Your task to perform on an android device: set an alarm Image 0: 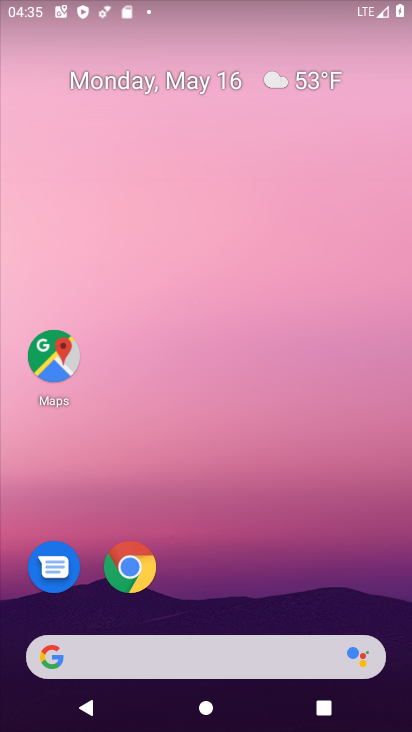
Step 0: drag from (306, 665) to (331, 123)
Your task to perform on an android device: set an alarm Image 1: 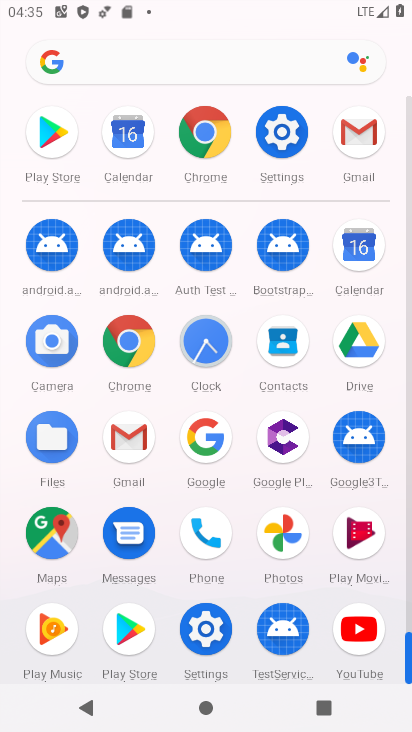
Step 1: click (204, 350)
Your task to perform on an android device: set an alarm Image 2: 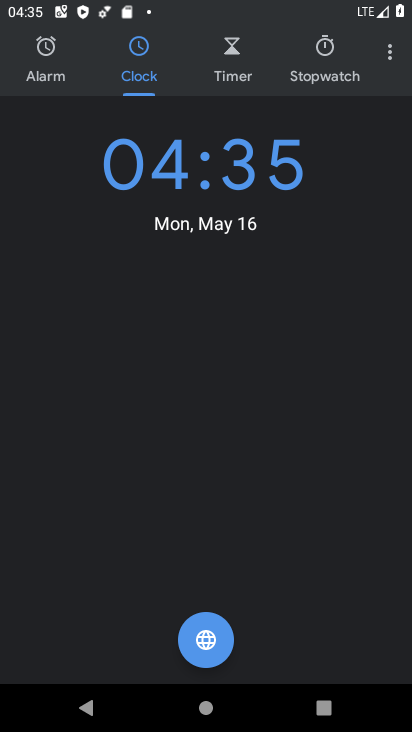
Step 2: click (54, 53)
Your task to perform on an android device: set an alarm Image 3: 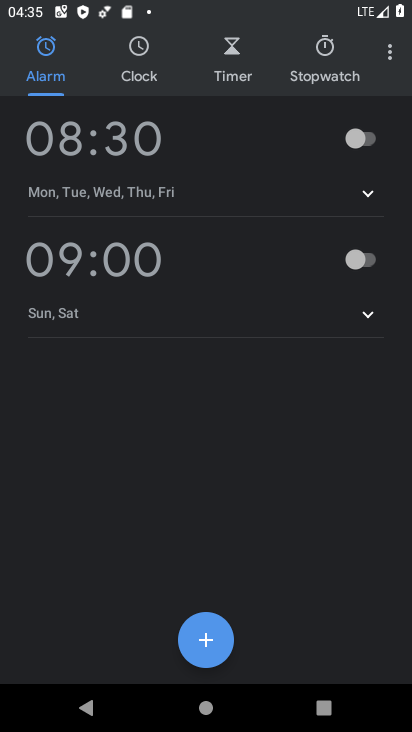
Step 3: click (356, 134)
Your task to perform on an android device: set an alarm Image 4: 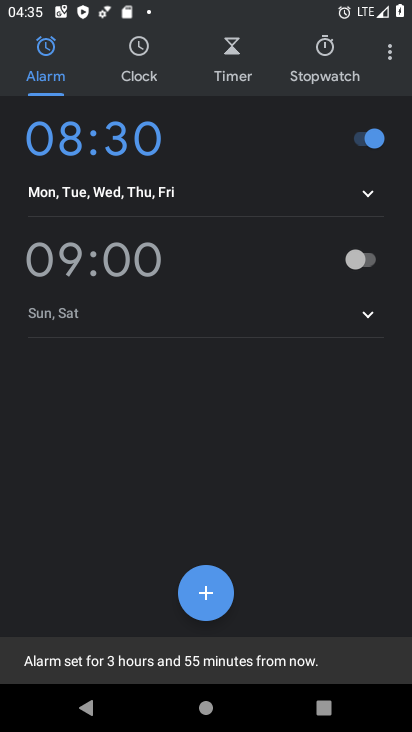
Step 4: task complete